Your task to perform on an android device: Go to calendar. Show me events next week Image 0: 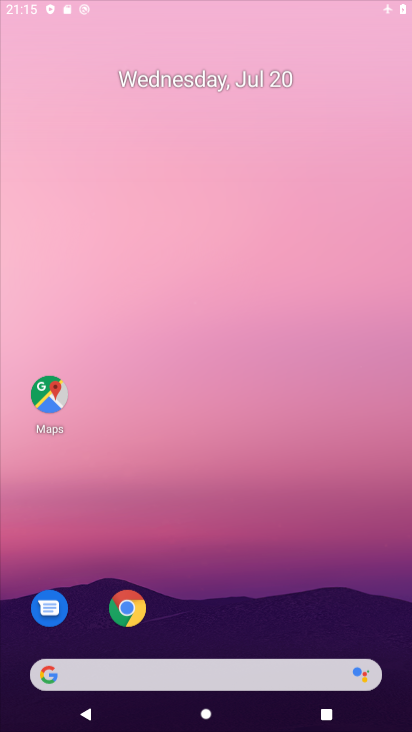
Step 0: drag from (195, 205) to (207, 266)
Your task to perform on an android device: Go to calendar. Show me events next week Image 1: 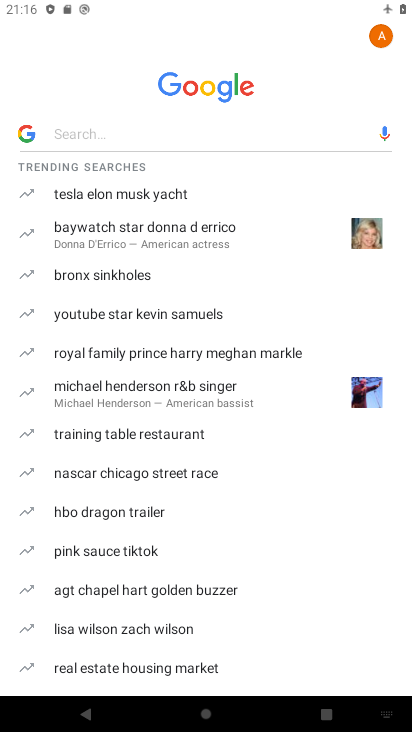
Step 1: press back button
Your task to perform on an android device: Go to calendar. Show me events next week Image 2: 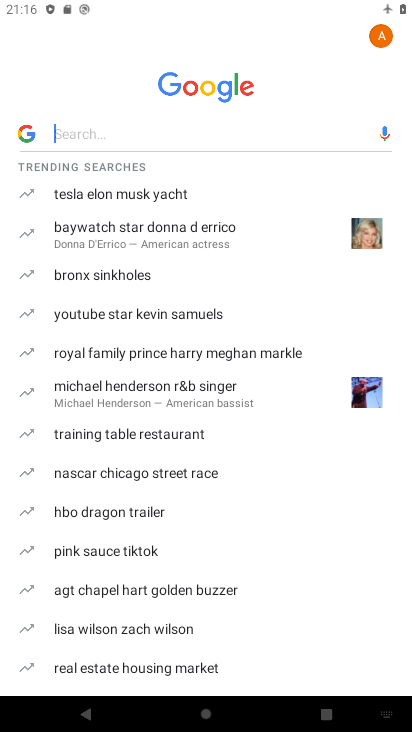
Step 2: press back button
Your task to perform on an android device: Go to calendar. Show me events next week Image 3: 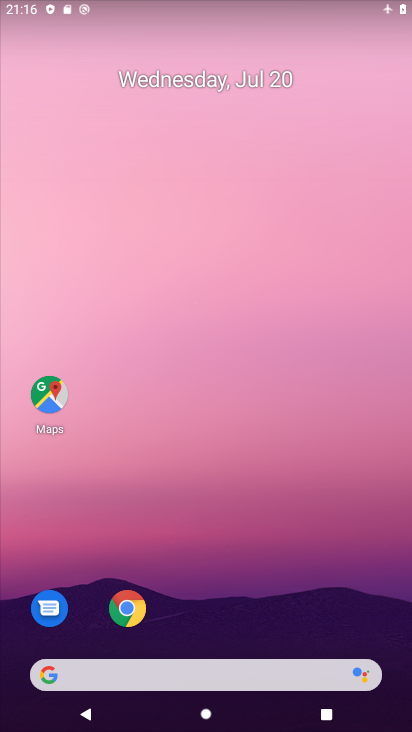
Step 3: drag from (236, 617) to (191, 141)
Your task to perform on an android device: Go to calendar. Show me events next week Image 4: 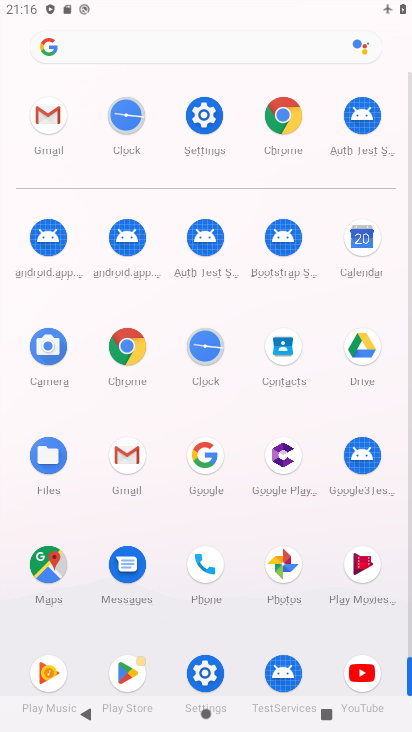
Step 4: click (360, 241)
Your task to perform on an android device: Go to calendar. Show me events next week Image 5: 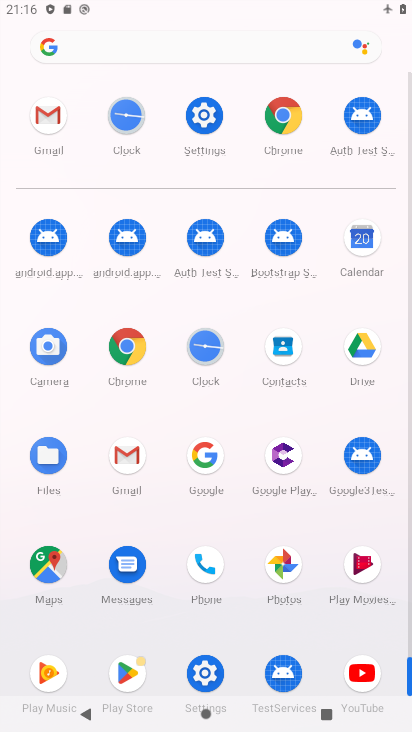
Step 5: click (359, 237)
Your task to perform on an android device: Go to calendar. Show me events next week Image 6: 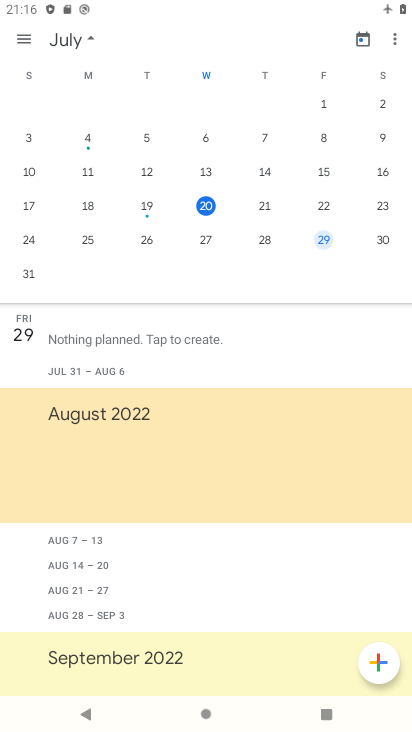
Step 6: click (266, 204)
Your task to perform on an android device: Go to calendar. Show me events next week Image 7: 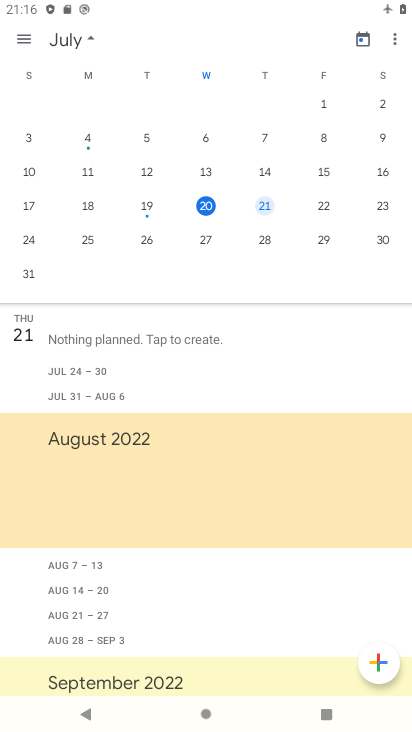
Step 7: click (314, 236)
Your task to perform on an android device: Go to calendar. Show me events next week Image 8: 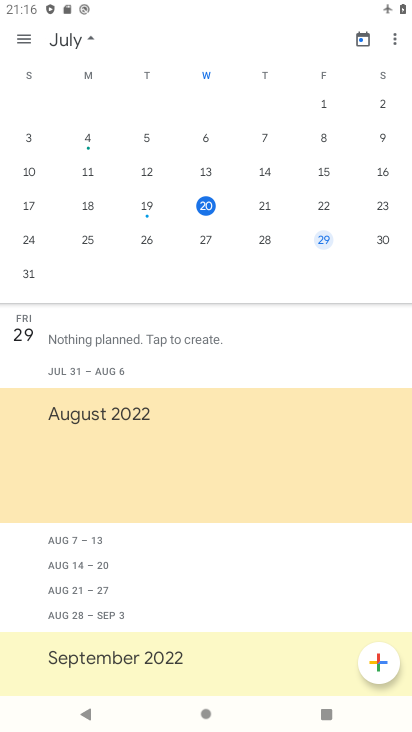
Step 8: task complete